Your task to perform on an android device: set the stopwatch Image 0: 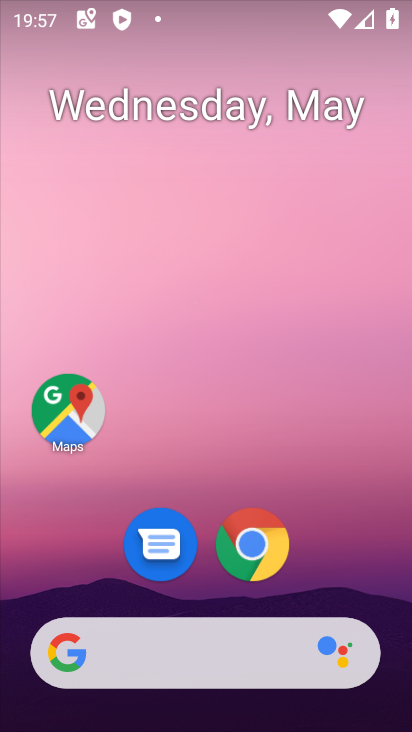
Step 0: drag from (220, 603) to (197, 188)
Your task to perform on an android device: set the stopwatch Image 1: 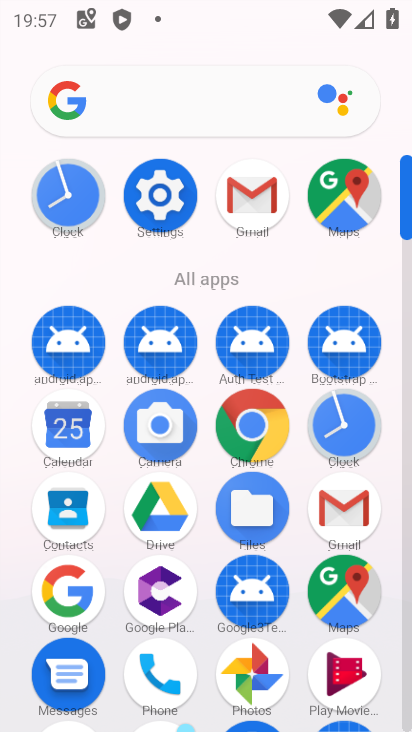
Step 1: click (79, 228)
Your task to perform on an android device: set the stopwatch Image 2: 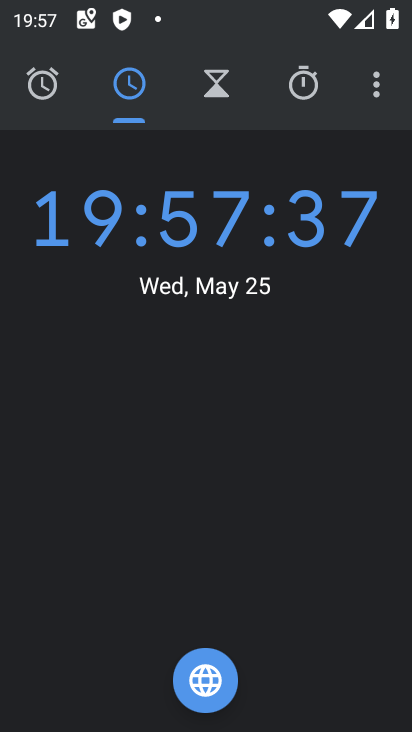
Step 2: click (245, 69)
Your task to perform on an android device: set the stopwatch Image 3: 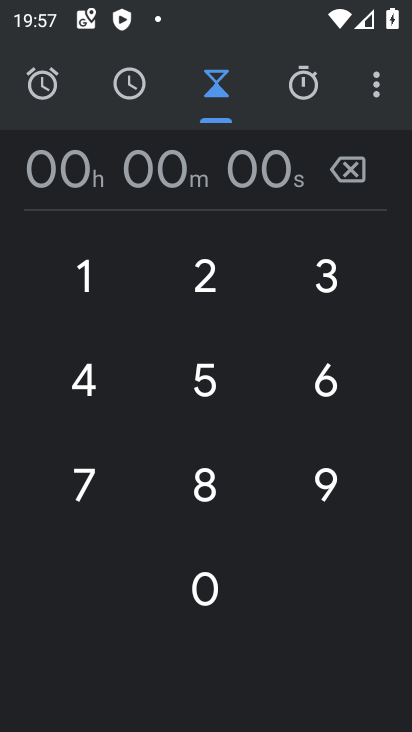
Step 3: click (217, 354)
Your task to perform on an android device: set the stopwatch Image 4: 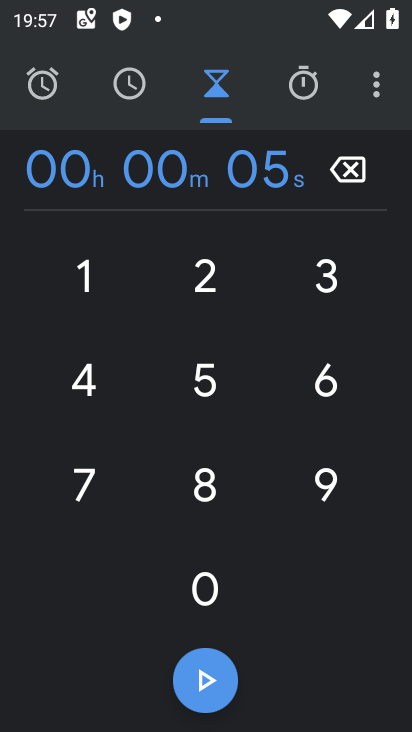
Step 4: click (195, 672)
Your task to perform on an android device: set the stopwatch Image 5: 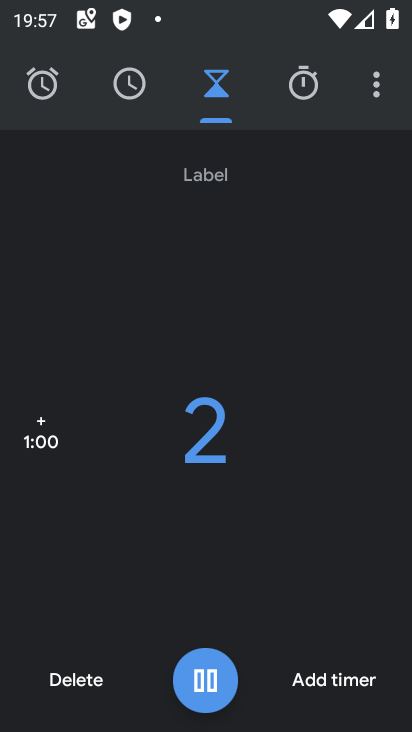
Step 5: task complete